Your task to perform on an android device: Open Maps and search for coffee Image 0: 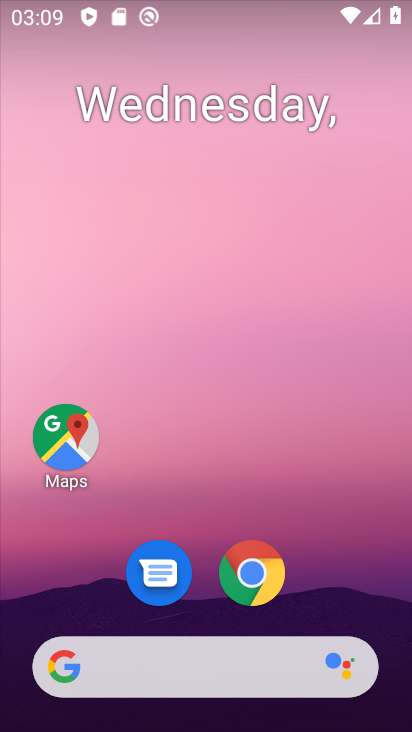
Step 0: drag from (231, 723) to (221, 156)
Your task to perform on an android device: Open Maps and search for coffee Image 1: 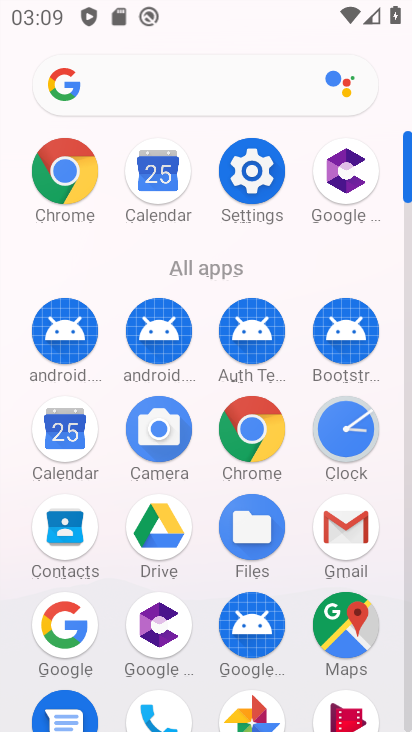
Step 1: click (353, 619)
Your task to perform on an android device: Open Maps and search for coffee Image 2: 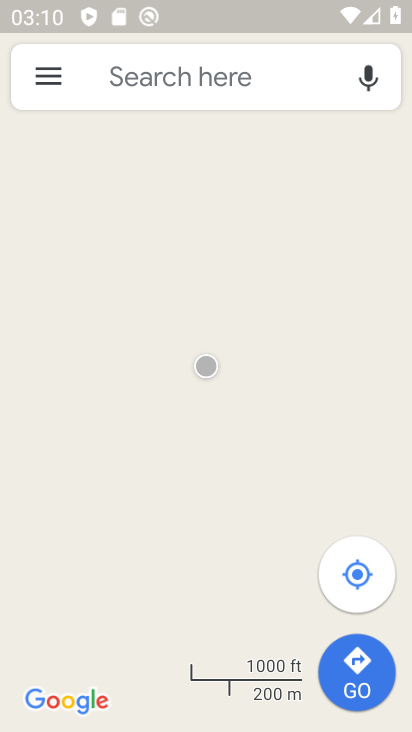
Step 2: click (211, 69)
Your task to perform on an android device: Open Maps and search for coffee Image 3: 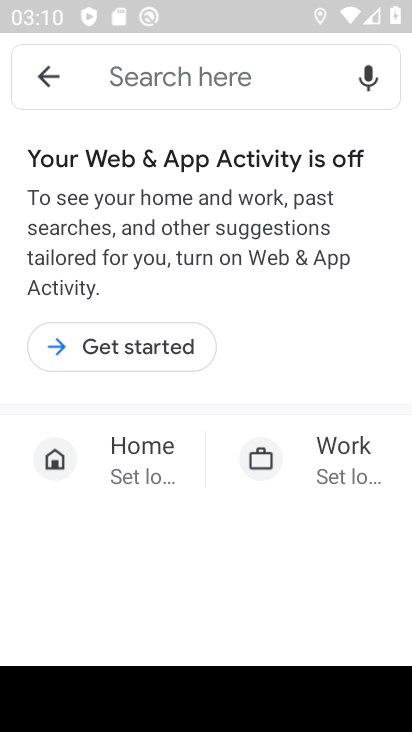
Step 3: type "coffee"
Your task to perform on an android device: Open Maps and search for coffee Image 4: 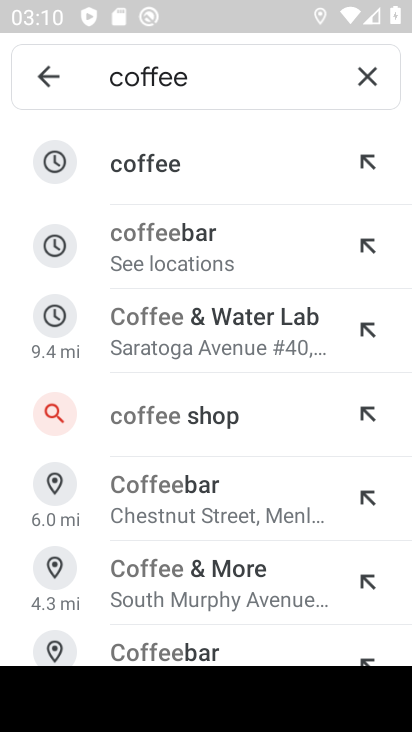
Step 4: click (153, 164)
Your task to perform on an android device: Open Maps and search for coffee Image 5: 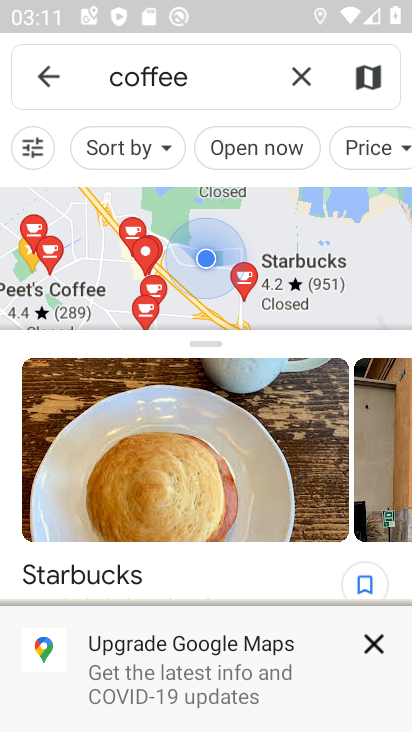
Step 5: task complete